Your task to perform on an android device: turn on data saver in the chrome app Image 0: 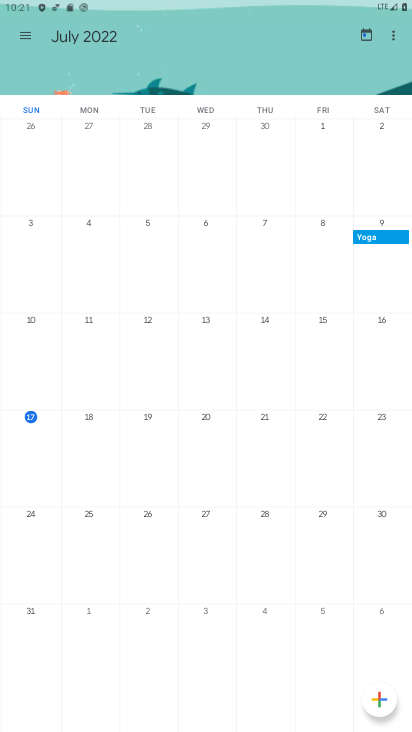
Step 0: press home button
Your task to perform on an android device: turn on data saver in the chrome app Image 1: 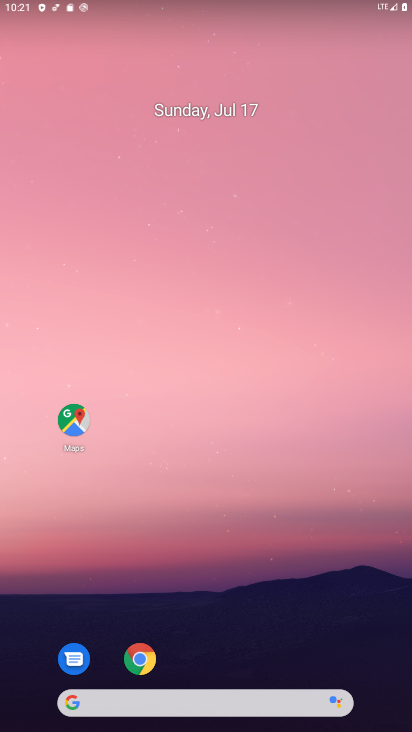
Step 1: click (145, 667)
Your task to perform on an android device: turn on data saver in the chrome app Image 2: 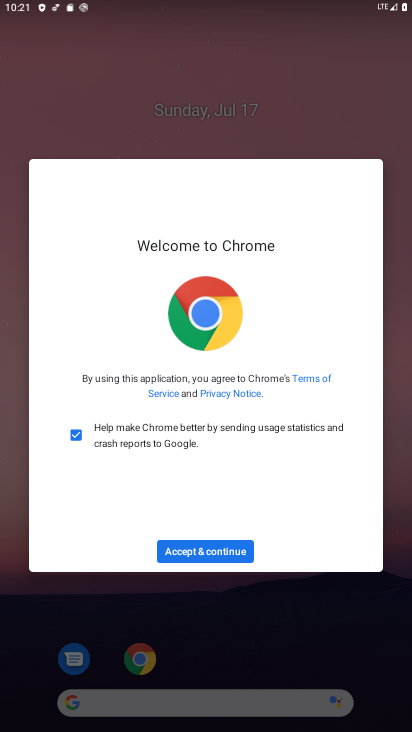
Step 2: click (236, 553)
Your task to perform on an android device: turn on data saver in the chrome app Image 3: 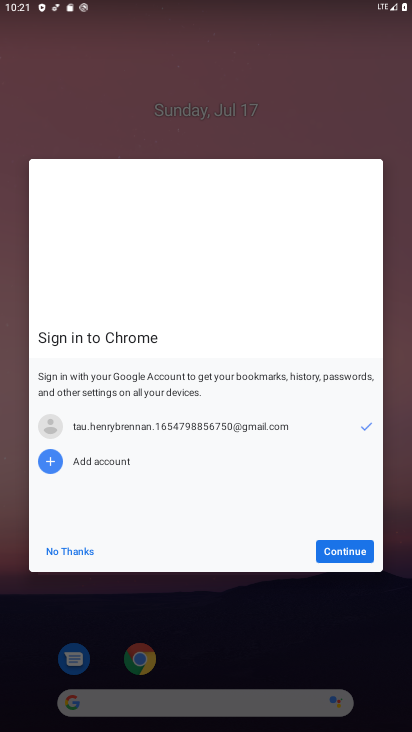
Step 3: click (353, 542)
Your task to perform on an android device: turn on data saver in the chrome app Image 4: 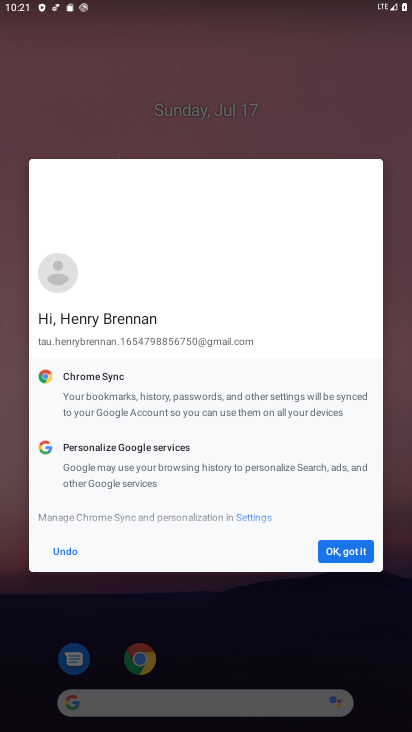
Step 4: click (353, 554)
Your task to perform on an android device: turn on data saver in the chrome app Image 5: 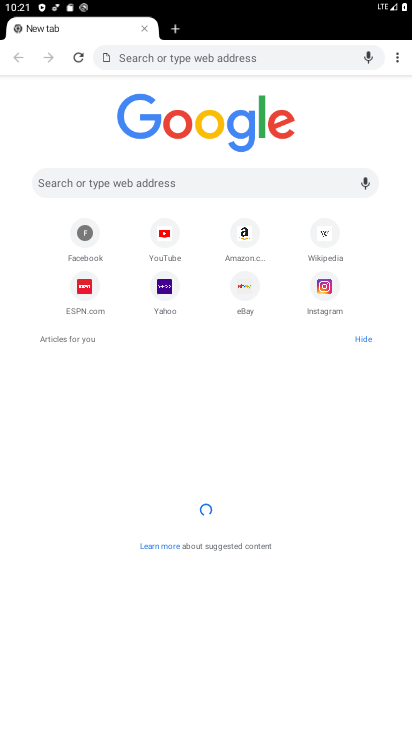
Step 5: drag from (400, 55) to (343, 296)
Your task to perform on an android device: turn on data saver in the chrome app Image 6: 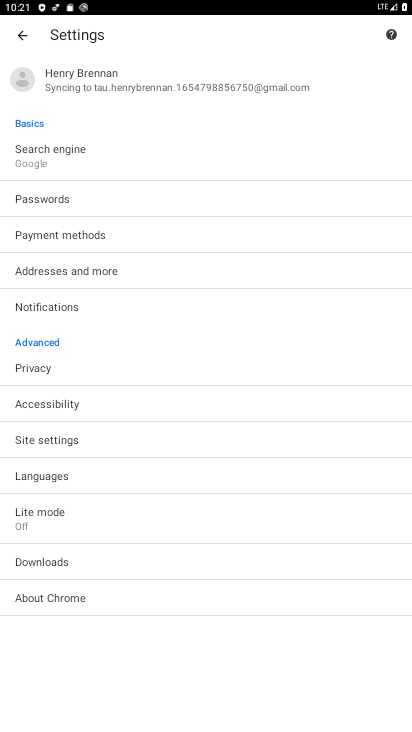
Step 6: click (78, 521)
Your task to perform on an android device: turn on data saver in the chrome app Image 7: 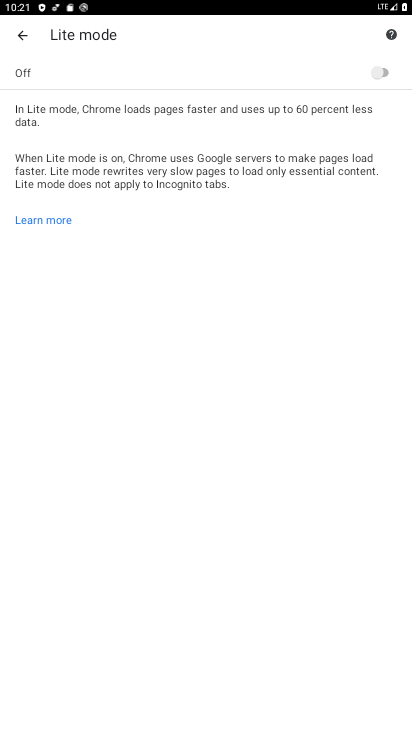
Step 7: click (391, 58)
Your task to perform on an android device: turn on data saver in the chrome app Image 8: 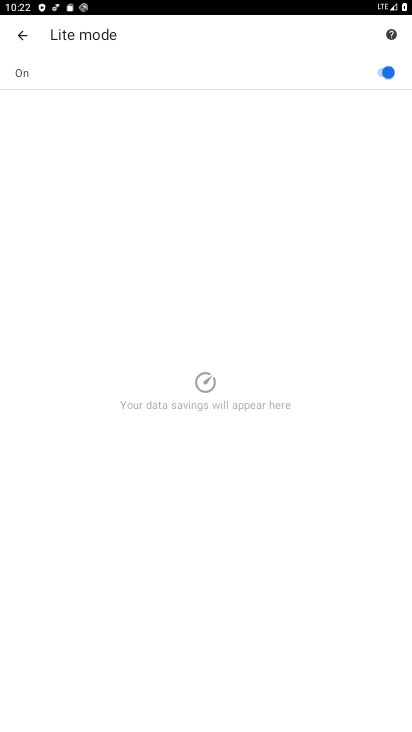
Step 8: task complete